Your task to perform on an android device: allow notifications from all sites in the chrome app Image 0: 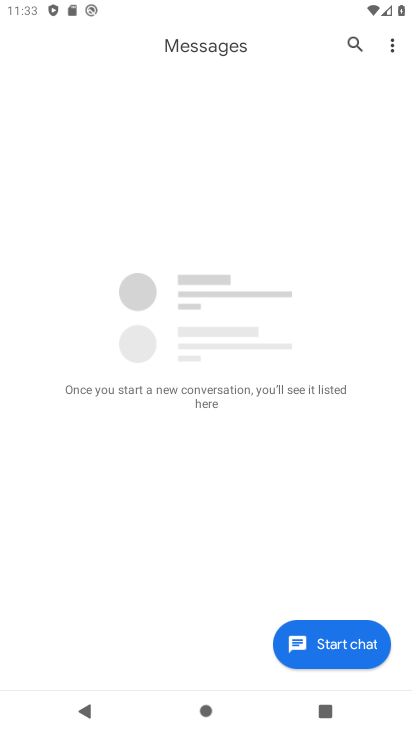
Step 0: press home button
Your task to perform on an android device: allow notifications from all sites in the chrome app Image 1: 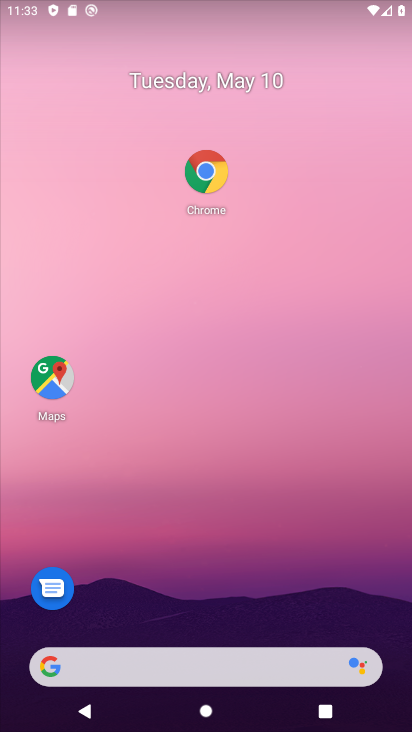
Step 1: drag from (264, 576) to (280, 229)
Your task to perform on an android device: allow notifications from all sites in the chrome app Image 2: 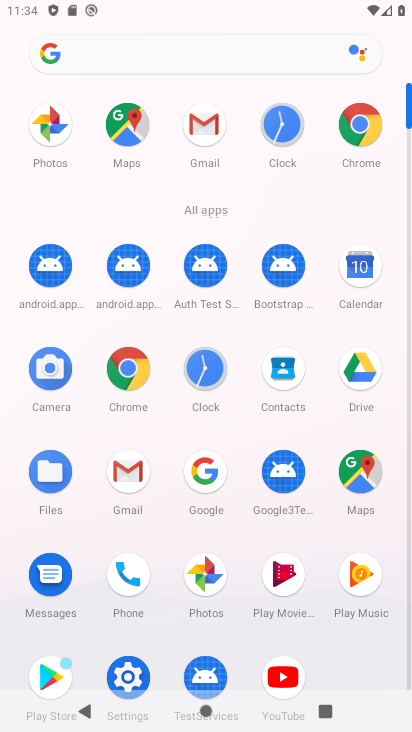
Step 2: click (126, 668)
Your task to perform on an android device: allow notifications from all sites in the chrome app Image 3: 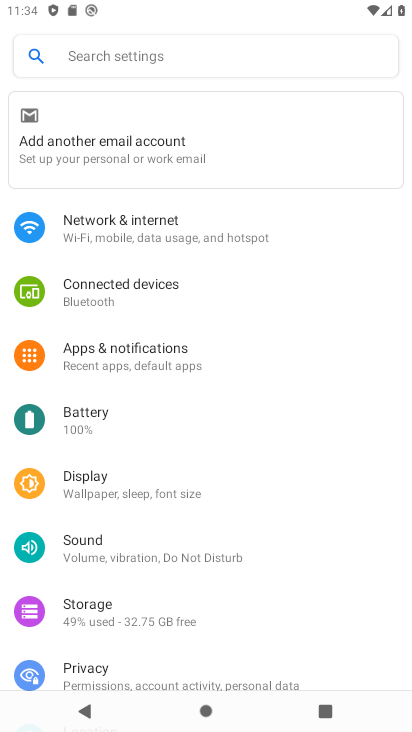
Step 3: press home button
Your task to perform on an android device: allow notifications from all sites in the chrome app Image 4: 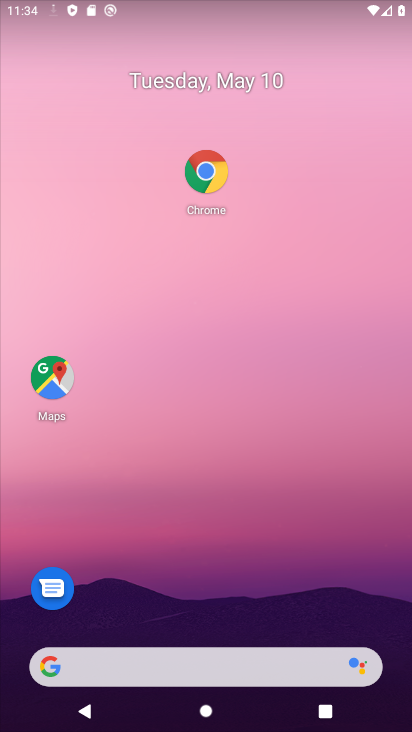
Step 4: drag from (285, 580) to (293, 271)
Your task to perform on an android device: allow notifications from all sites in the chrome app Image 5: 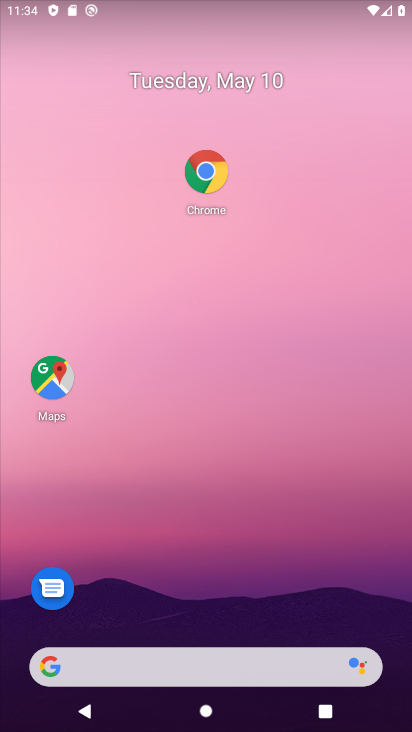
Step 5: click (202, 163)
Your task to perform on an android device: allow notifications from all sites in the chrome app Image 6: 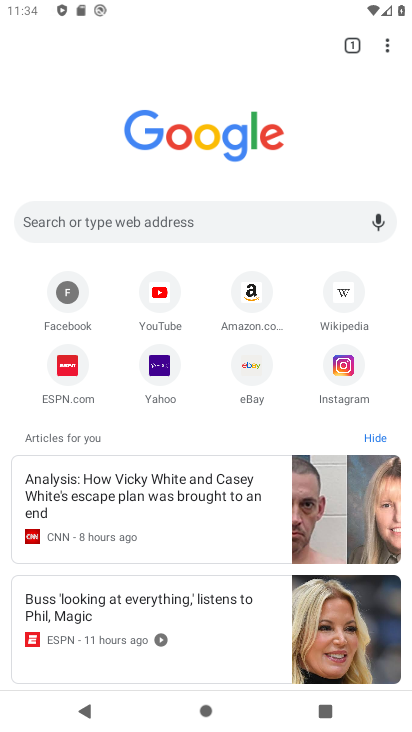
Step 6: click (377, 39)
Your task to perform on an android device: allow notifications from all sites in the chrome app Image 7: 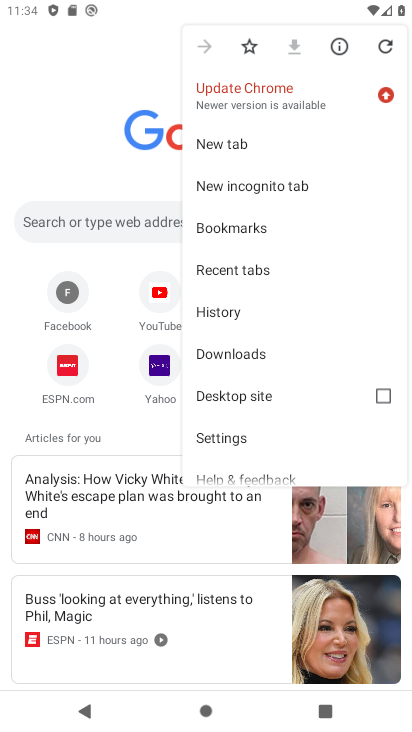
Step 7: click (237, 433)
Your task to perform on an android device: allow notifications from all sites in the chrome app Image 8: 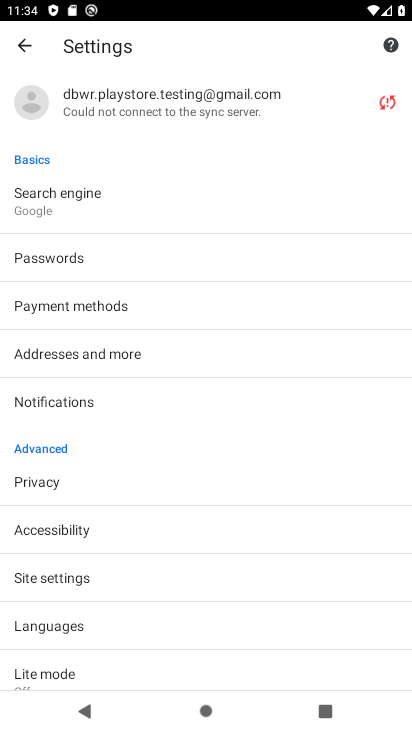
Step 8: click (85, 576)
Your task to perform on an android device: allow notifications from all sites in the chrome app Image 9: 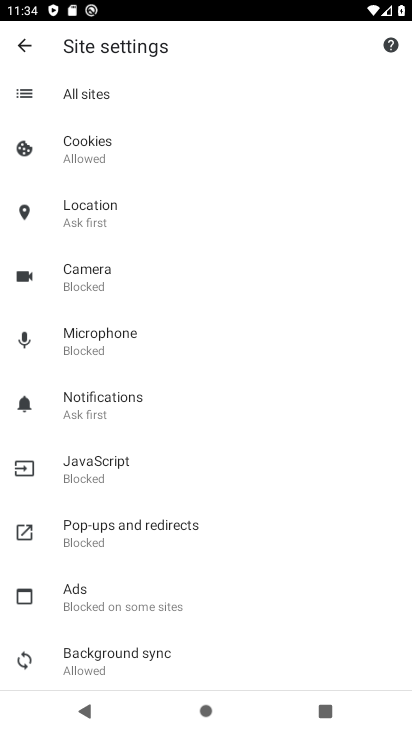
Step 9: click (102, 147)
Your task to perform on an android device: allow notifications from all sites in the chrome app Image 10: 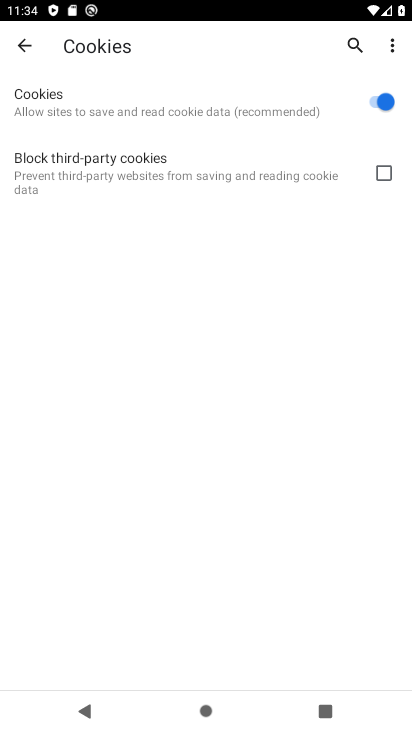
Step 10: click (22, 39)
Your task to perform on an android device: allow notifications from all sites in the chrome app Image 11: 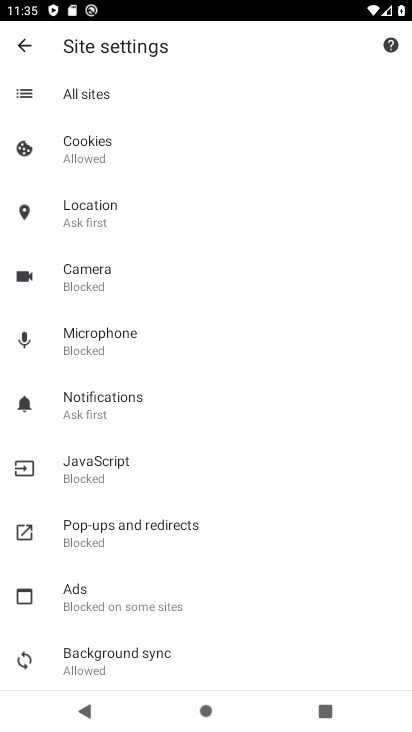
Step 11: click (118, 212)
Your task to perform on an android device: allow notifications from all sites in the chrome app Image 12: 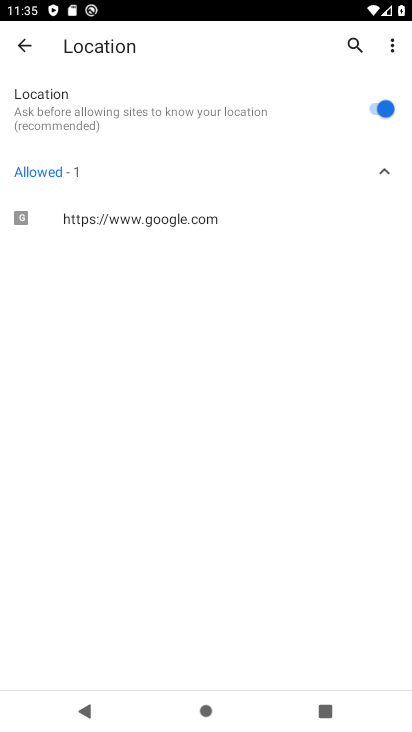
Step 12: task complete